Your task to perform on an android device: Open the stopwatch Image 0: 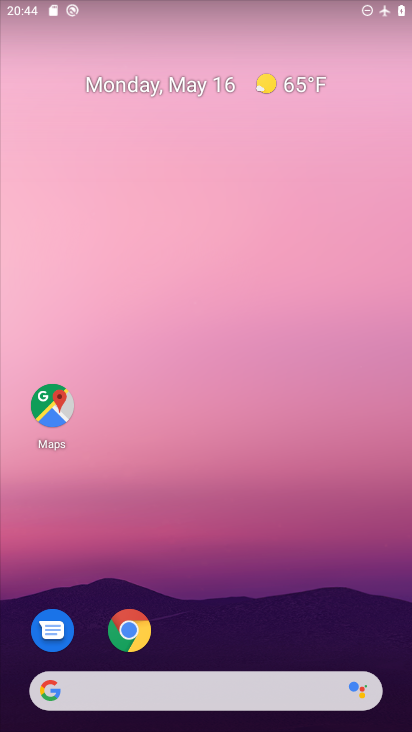
Step 0: drag from (199, 640) to (235, 227)
Your task to perform on an android device: Open the stopwatch Image 1: 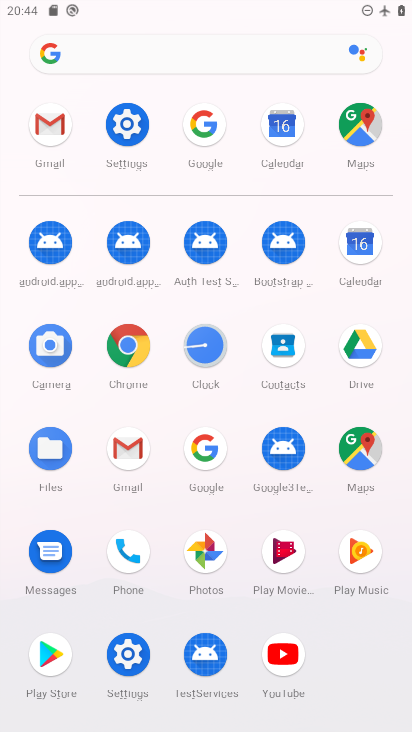
Step 1: click (192, 346)
Your task to perform on an android device: Open the stopwatch Image 2: 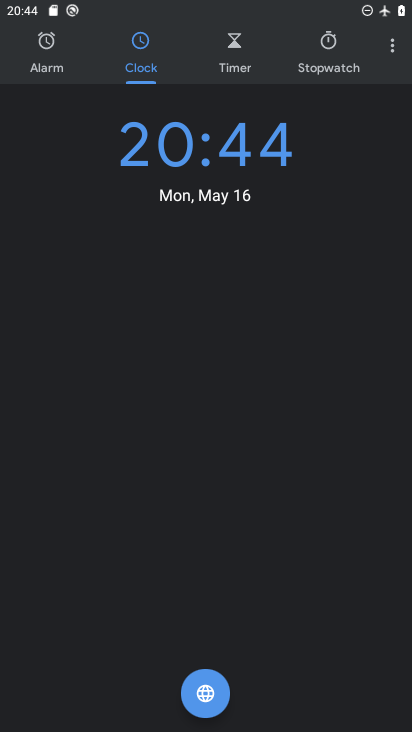
Step 2: click (324, 55)
Your task to perform on an android device: Open the stopwatch Image 3: 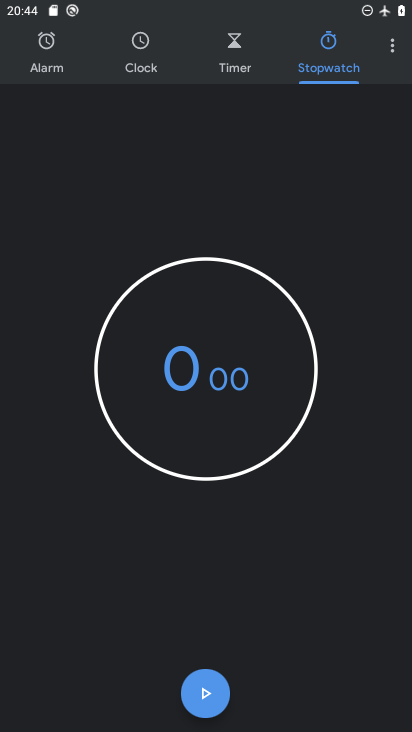
Step 3: task complete